Your task to perform on an android device: turn on sleep mode Image 0: 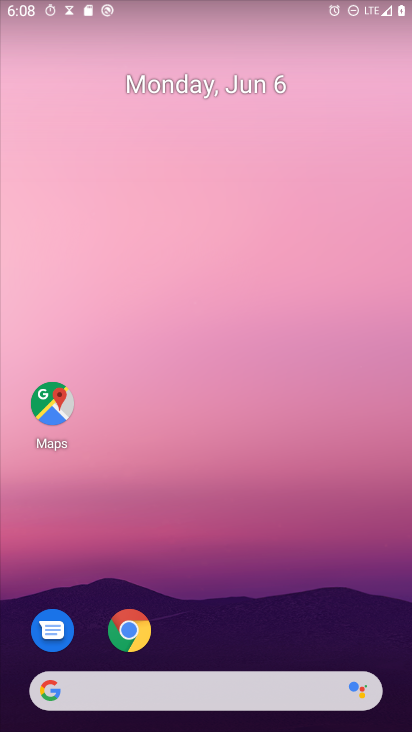
Step 0: press home button
Your task to perform on an android device: turn on sleep mode Image 1: 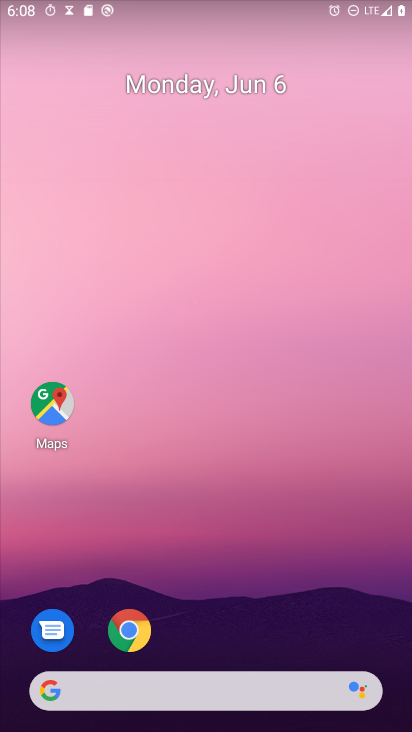
Step 1: drag from (297, 529) to (214, 59)
Your task to perform on an android device: turn on sleep mode Image 2: 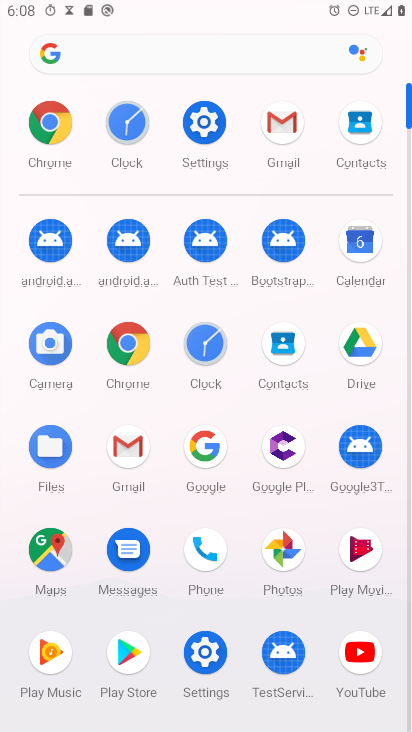
Step 2: click (207, 117)
Your task to perform on an android device: turn on sleep mode Image 3: 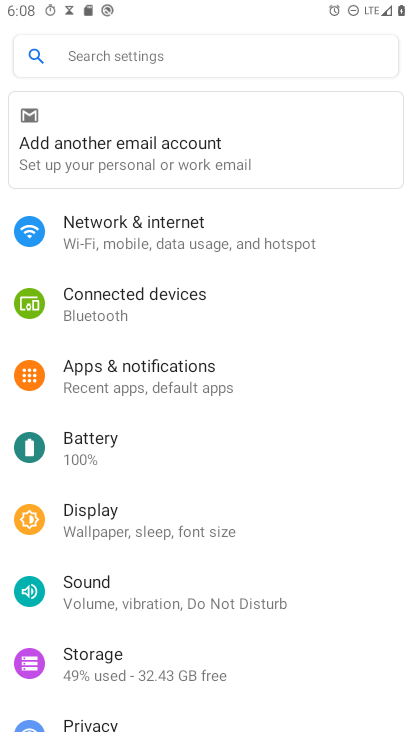
Step 3: click (144, 523)
Your task to perform on an android device: turn on sleep mode Image 4: 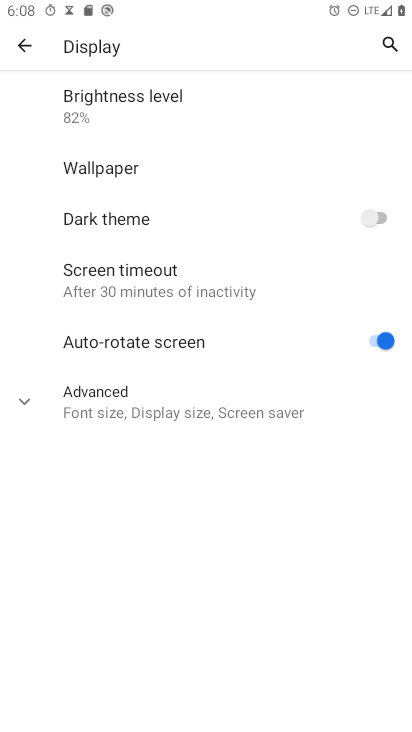
Step 4: task complete